Your task to perform on an android device: turn pop-ups on in chrome Image 0: 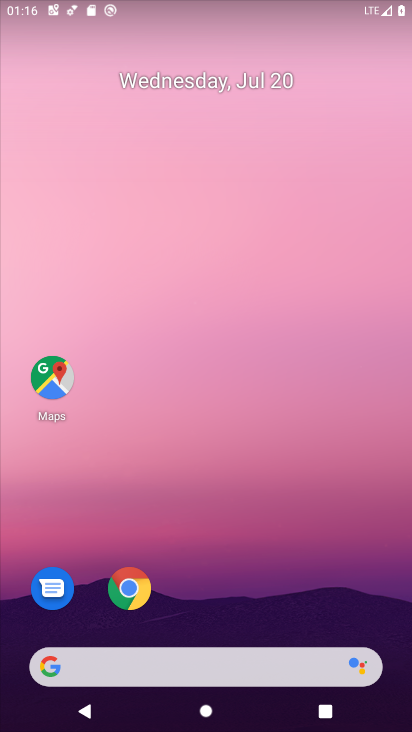
Step 0: drag from (223, 566) to (252, 263)
Your task to perform on an android device: turn pop-ups on in chrome Image 1: 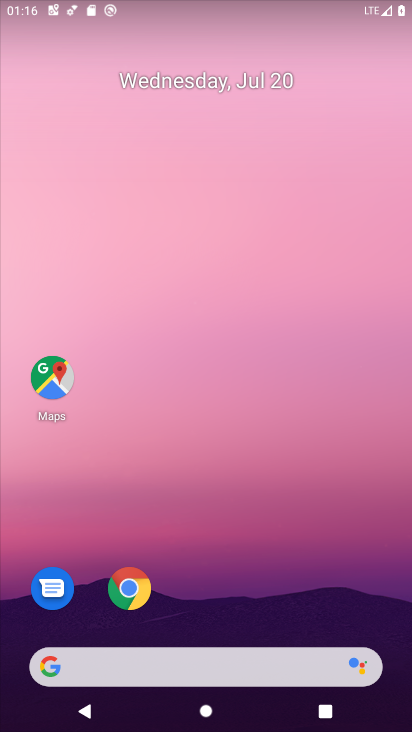
Step 1: drag from (223, 599) to (246, 154)
Your task to perform on an android device: turn pop-ups on in chrome Image 2: 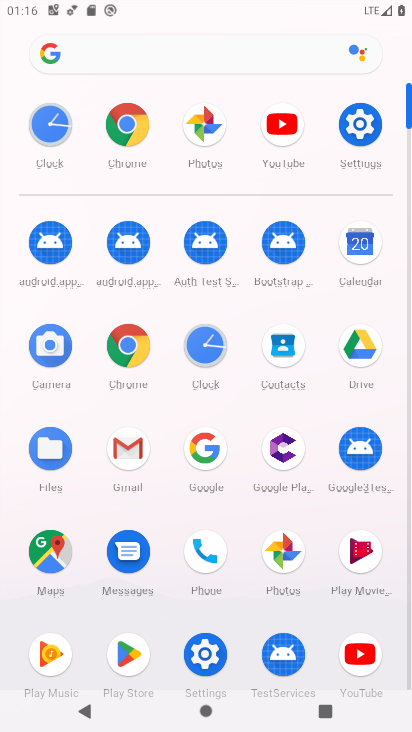
Step 2: click (131, 124)
Your task to perform on an android device: turn pop-ups on in chrome Image 3: 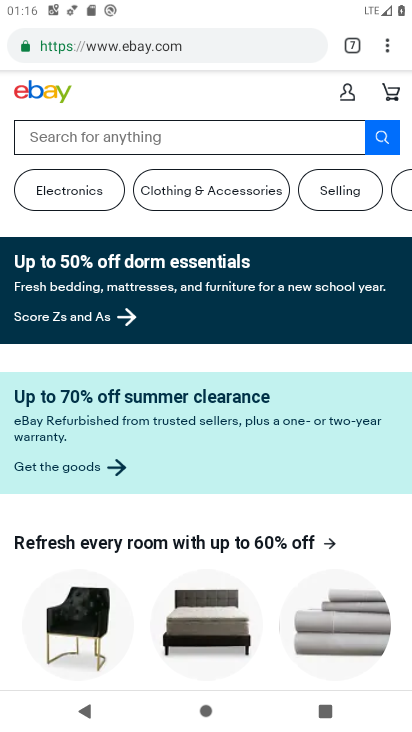
Step 3: click (385, 48)
Your task to perform on an android device: turn pop-ups on in chrome Image 4: 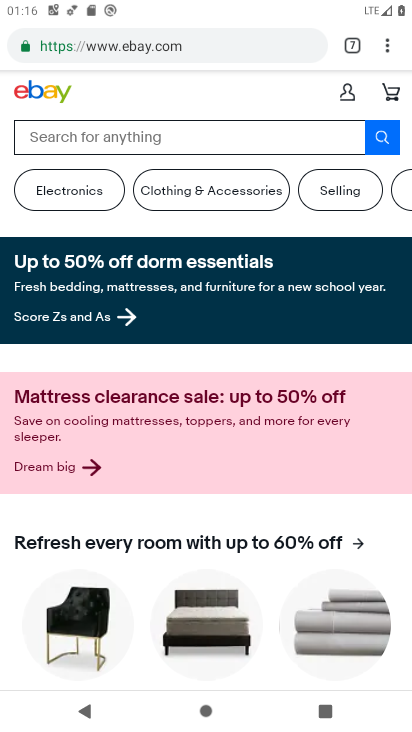
Step 4: click (387, 46)
Your task to perform on an android device: turn pop-ups on in chrome Image 5: 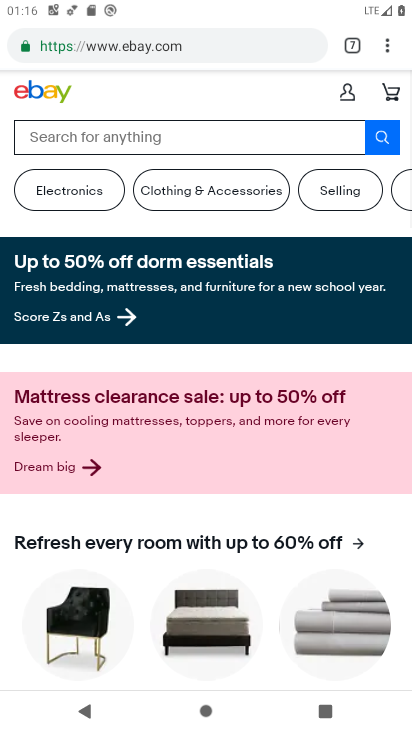
Step 5: click (403, 42)
Your task to perform on an android device: turn pop-ups on in chrome Image 6: 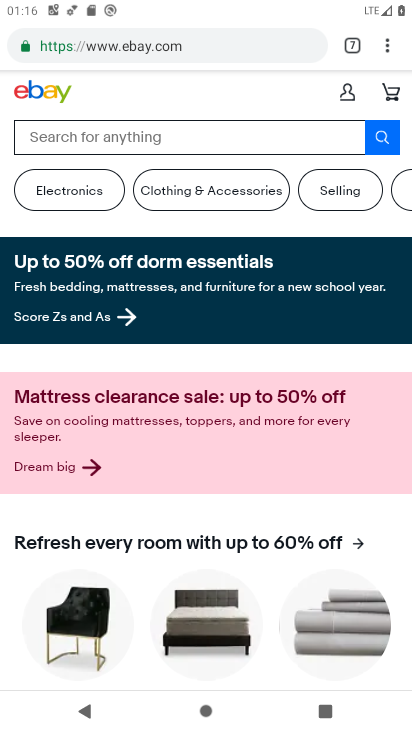
Step 6: click (396, 42)
Your task to perform on an android device: turn pop-ups on in chrome Image 7: 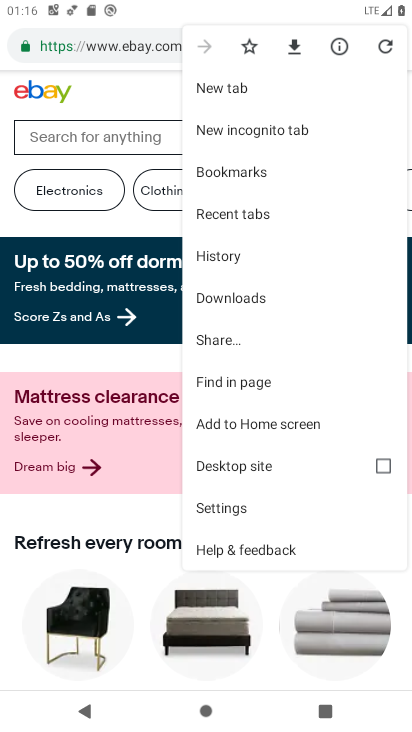
Step 7: click (216, 510)
Your task to perform on an android device: turn pop-ups on in chrome Image 8: 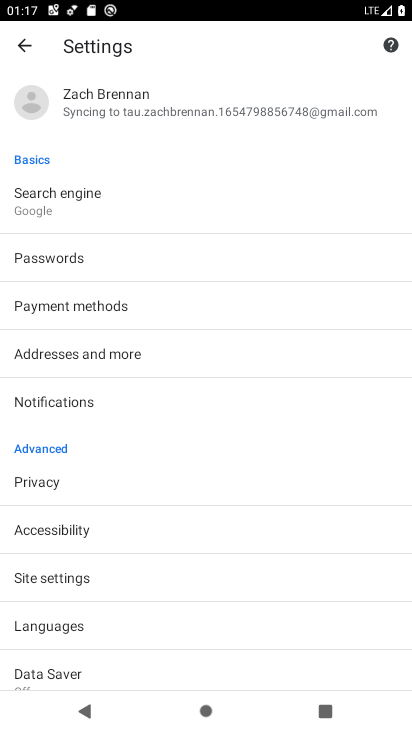
Step 8: click (149, 581)
Your task to perform on an android device: turn pop-ups on in chrome Image 9: 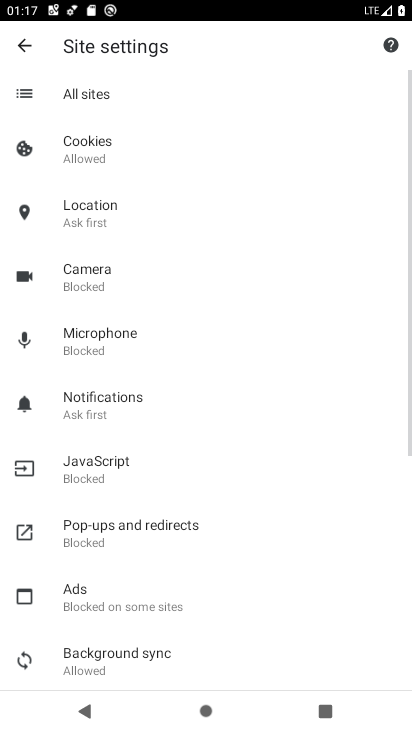
Step 9: click (176, 522)
Your task to perform on an android device: turn pop-ups on in chrome Image 10: 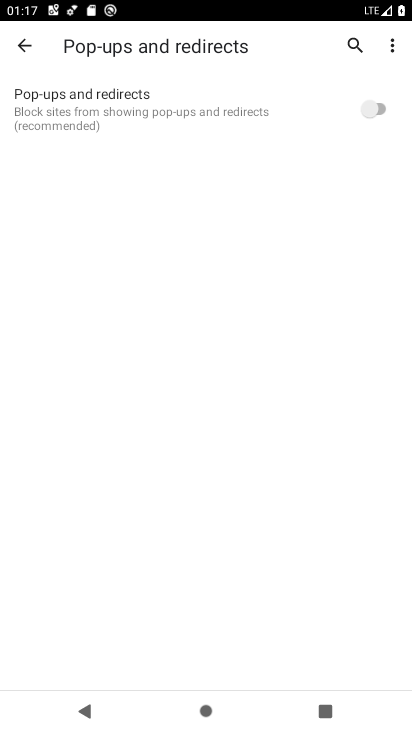
Step 10: click (370, 107)
Your task to perform on an android device: turn pop-ups on in chrome Image 11: 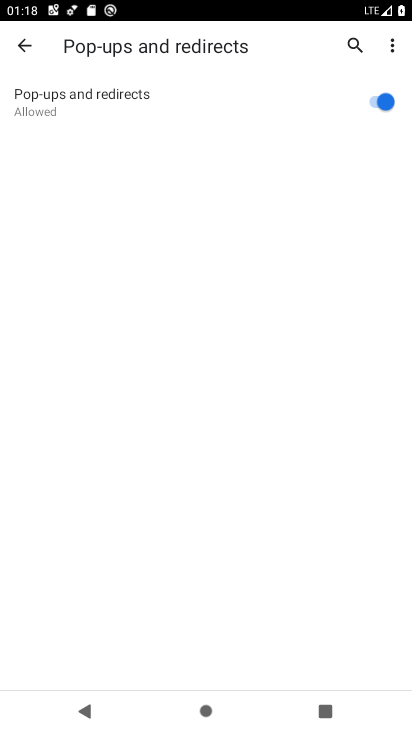
Step 11: task complete